Your task to perform on an android device: turn off location history Image 0: 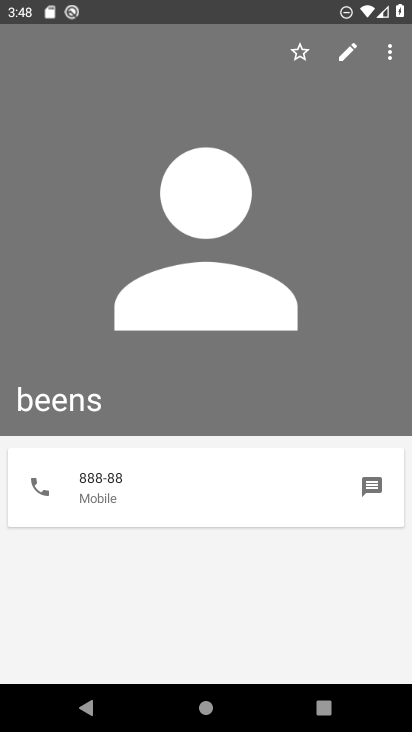
Step 0: press home button
Your task to perform on an android device: turn off location history Image 1: 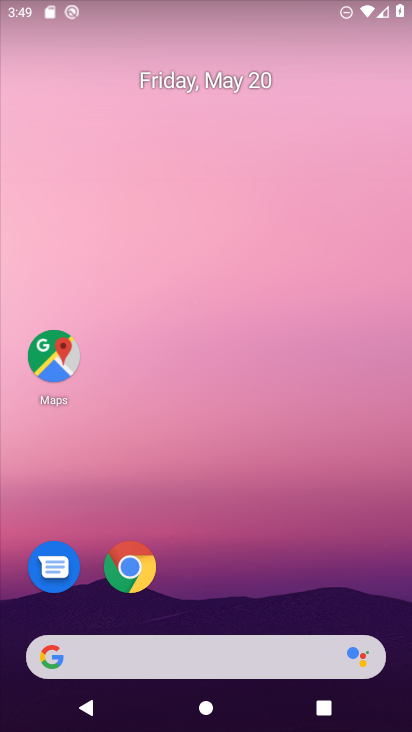
Step 1: drag from (221, 730) to (202, 132)
Your task to perform on an android device: turn off location history Image 2: 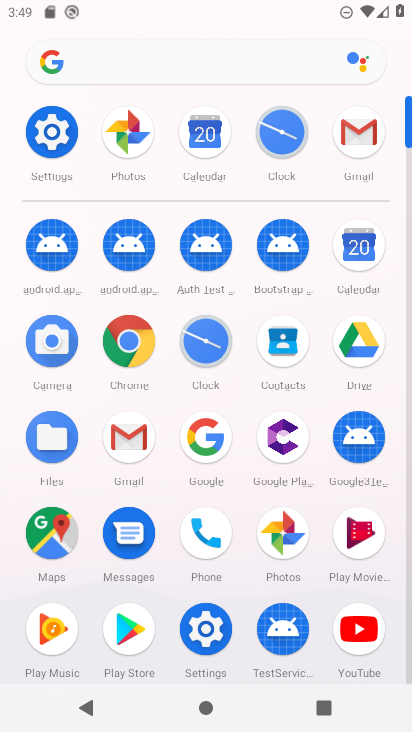
Step 2: click (48, 129)
Your task to perform on an android device: turn off location history Image 3: 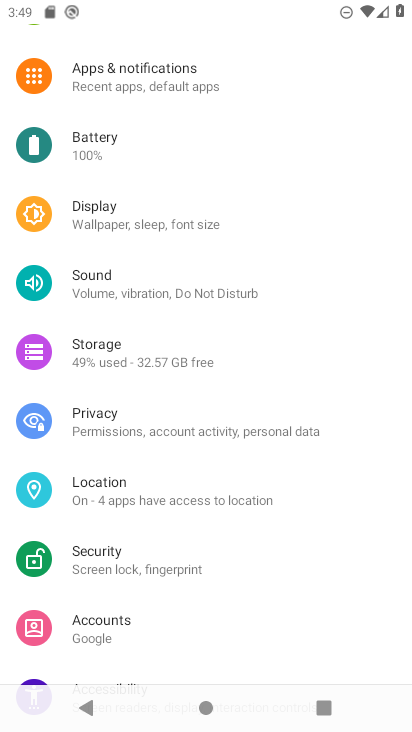
Step 3: click (121, 498)
Your task to perform on an android device: turn off location history Image 4: 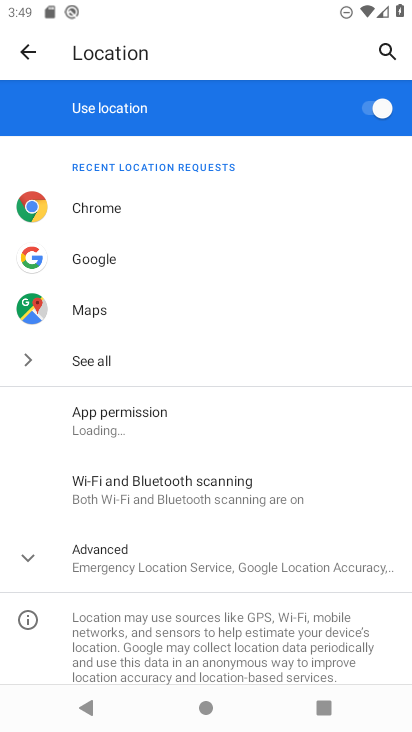
Step 4: click (169, 563)
Your task to perform on an android device: turn off location history Image 5: 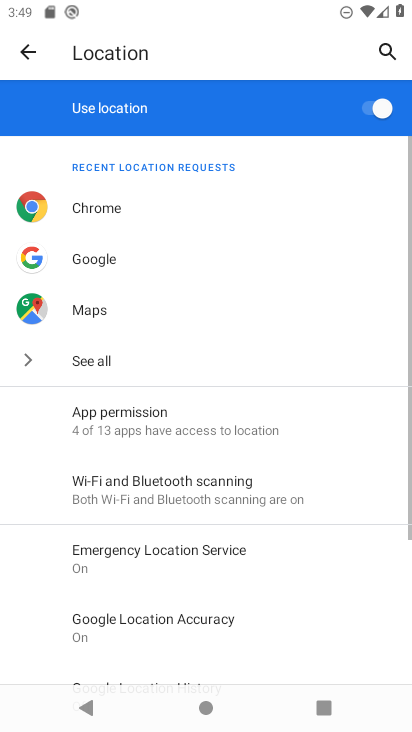
Step 5: drag from (202, 607) to (200, 299)
Your task to perform on an android device: turn off location history Image 6: 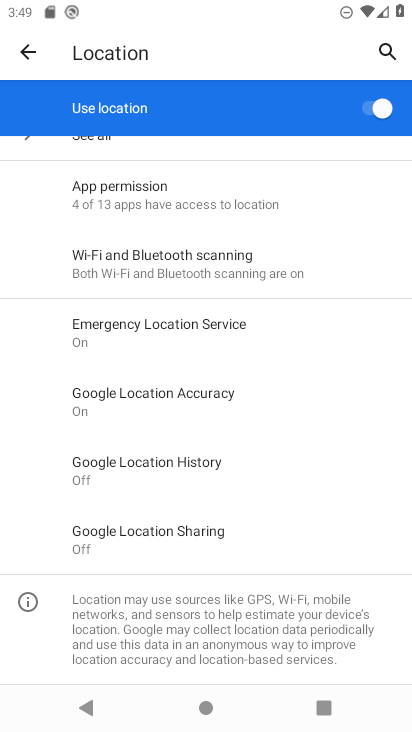
Step 6: click (154, 462)
Your task to perform on an android device: turn off location history Image 7: 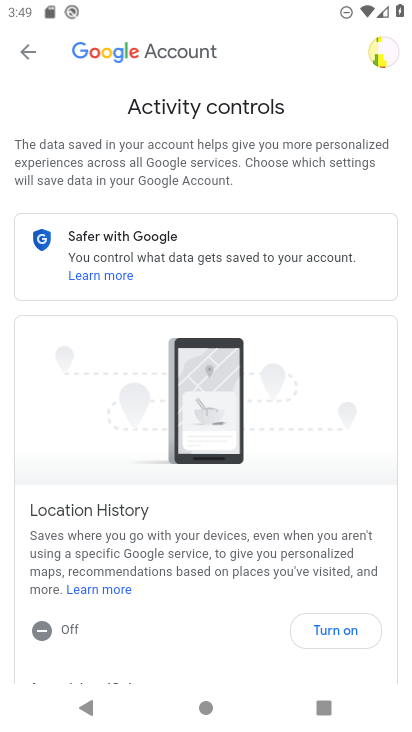
Step 7: task complete